Your task to perform on an android device: When is my next meeting? Image 0: 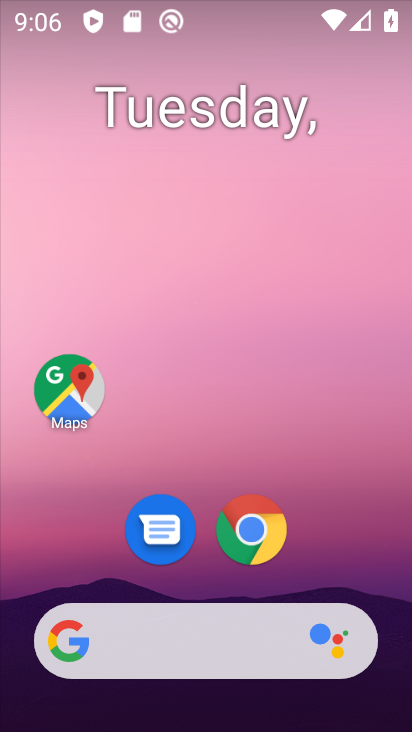
Step 0: drag from (369, 434) to (351, 57)
Your task to perform on an android device: When is my next meeting? Image 1: 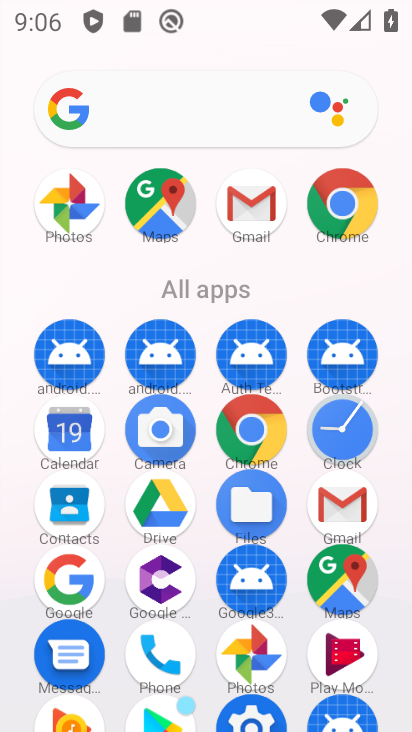
Step 1: click (68, 422)
Your task to perform on an android device: When is my next meeting? Image 2: 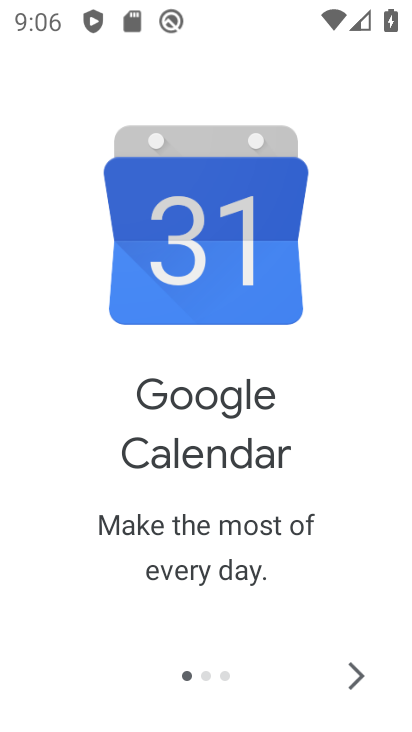
Step 2: click (357, 673)
Your task to perform on an android device: When is my next meeting? Image 3: 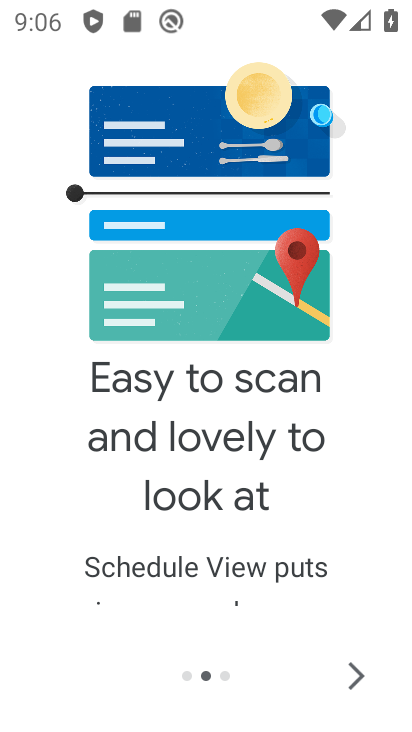
Step 3: click (357, 673)
Your task to perform on an android device: When is my next meeting? Image 4: 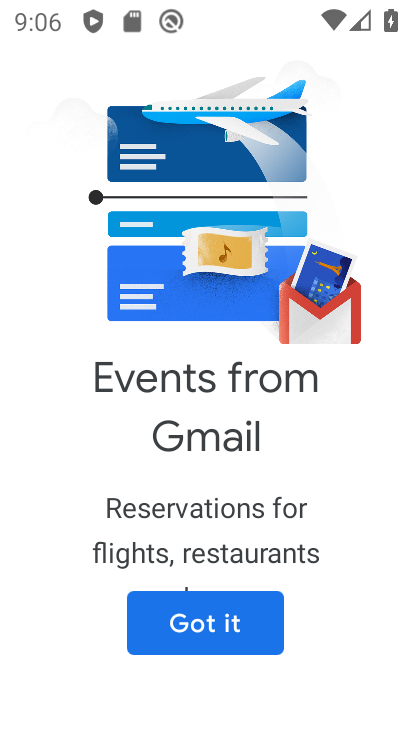
Step 4: click (222, 614)
Your task to perform on an android device: When is my next meeting? Image 5: 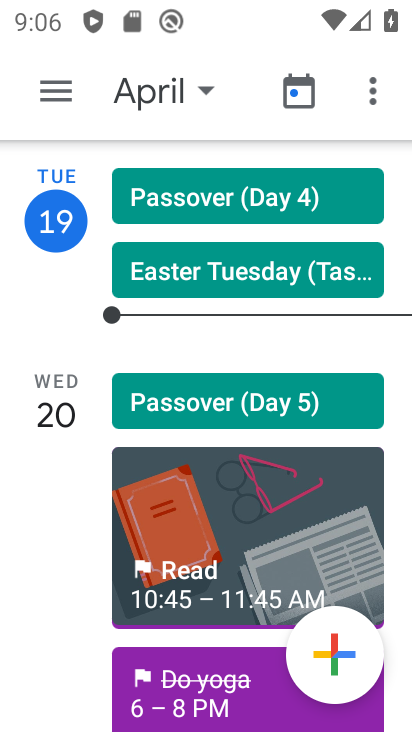
Step 5: click (201, 88)
Your task to perform on an android device: When is my next meeting? Image 6: 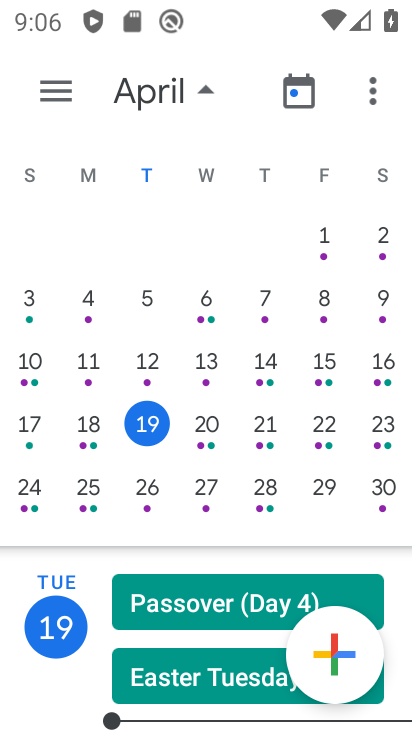
Step 6: click (257, 432)
Your task to perform on an android device: When is my next meeting? Image 7: 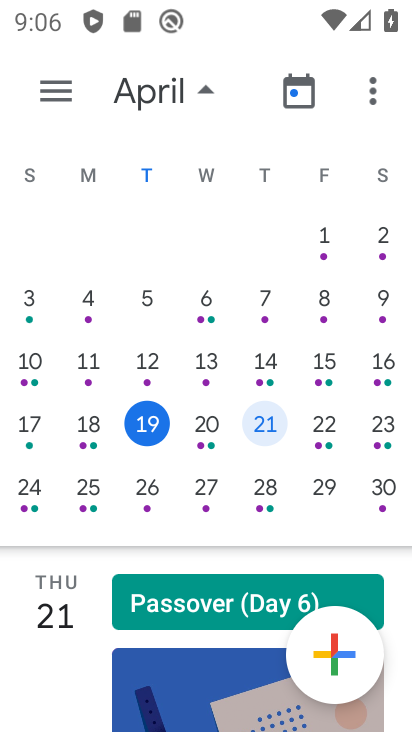
Step 7: task complete